Your task to perform on an android device: open a bookmark in the chrome app Image 0: 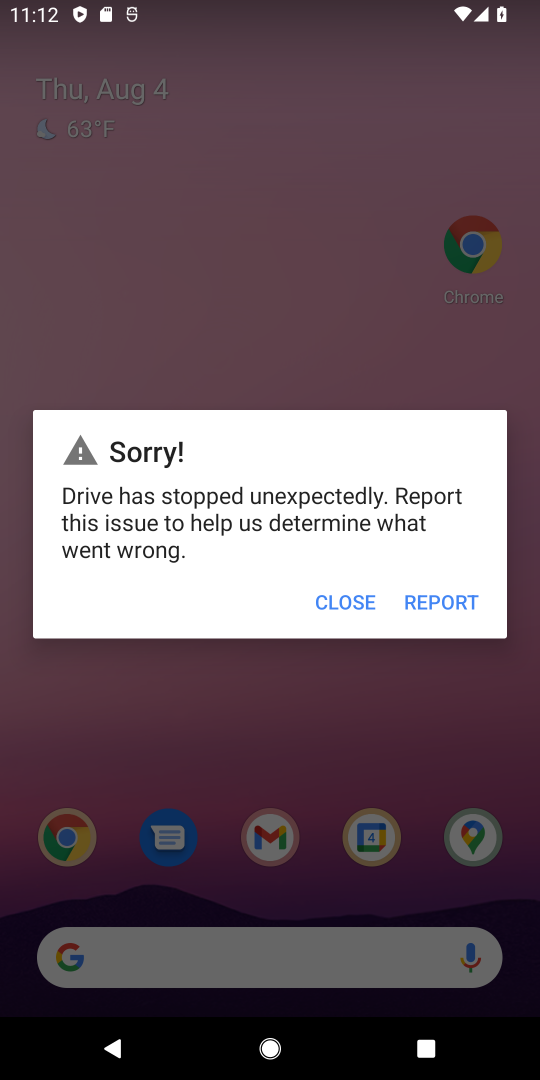
Step 0: press home button
Your task to perform on an android device: open a bookmark in the chrome app Image 1: 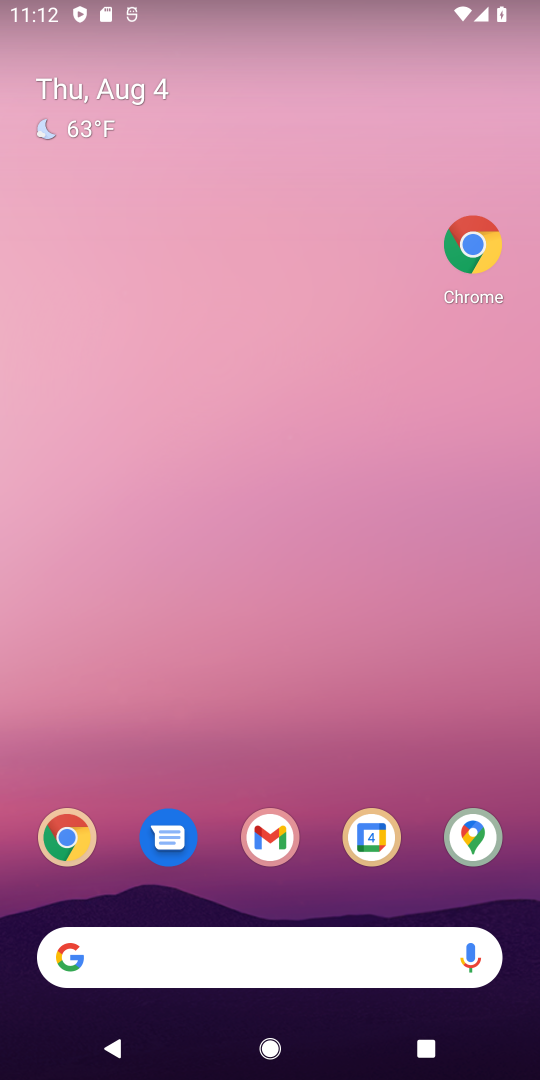
Step 1: click (470, 469)
Your task to perform on an android device: open a bookmark in the chrome app Image 2: 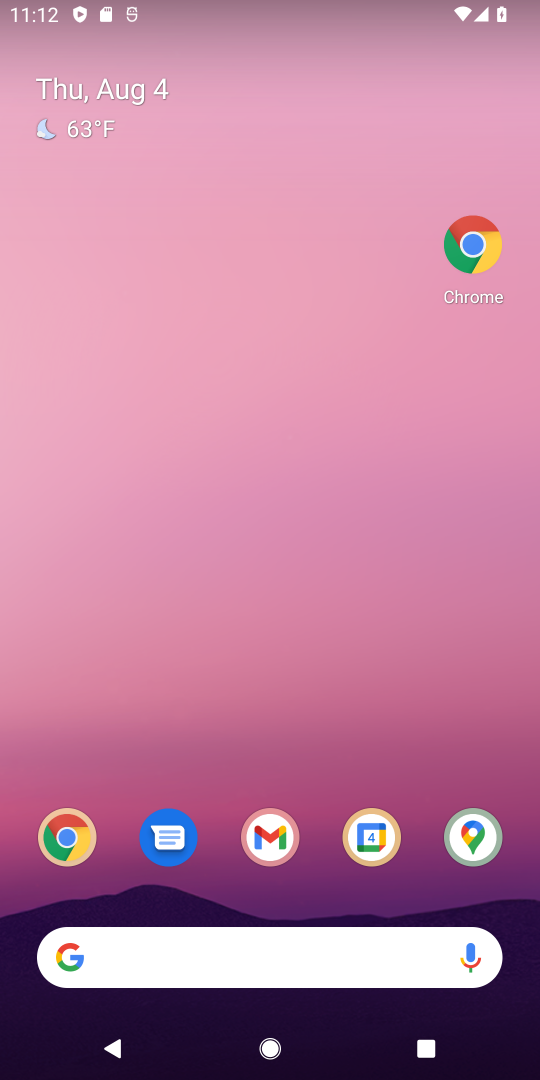
Step 2: drag from (324, 905) to (379, 66)
Your task to perform on an android device: open a bookmark in the chrome app Image 3: 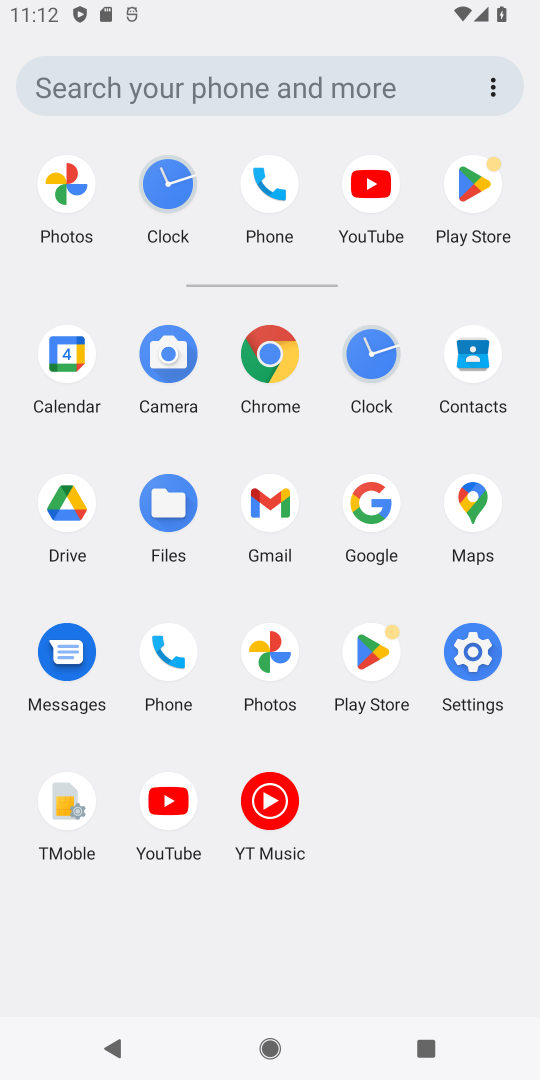
Step 3: click (271, 353)
Your task to perform on an android device: open a bookmark in the chrome app Image 4: 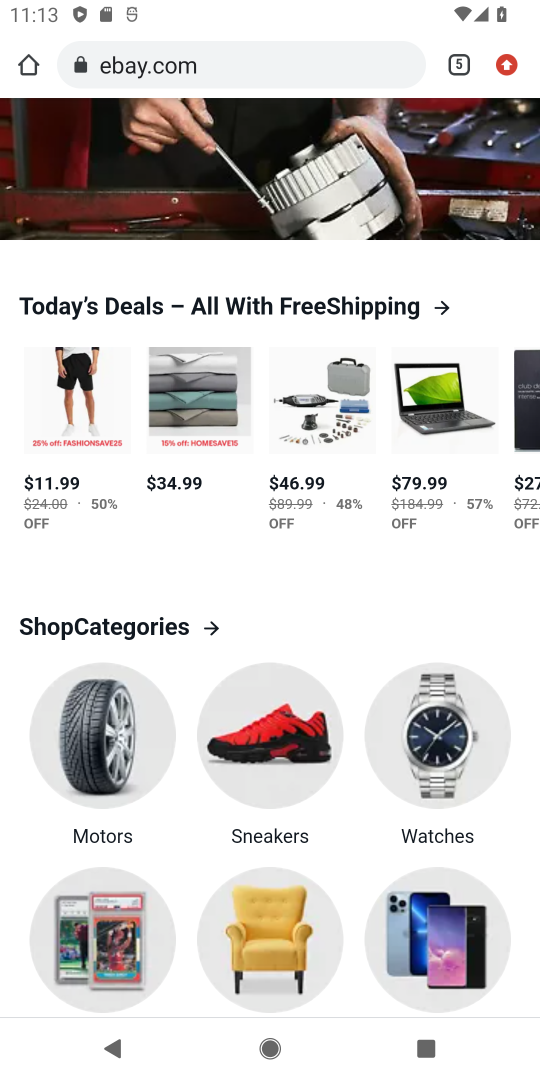
Step 4: click (507, 64)
Your task to perform on an android device: open a bookmark in the chrome app Image 5: 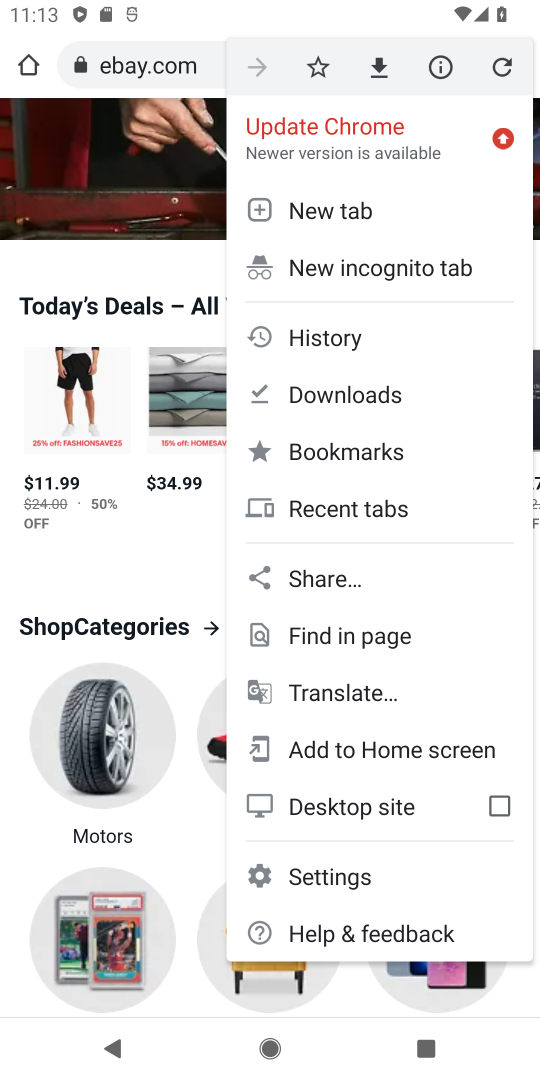
Step 5: click (334, 444)
Your task to perform on an android device: open a bookmark in the chrome app Image 6: 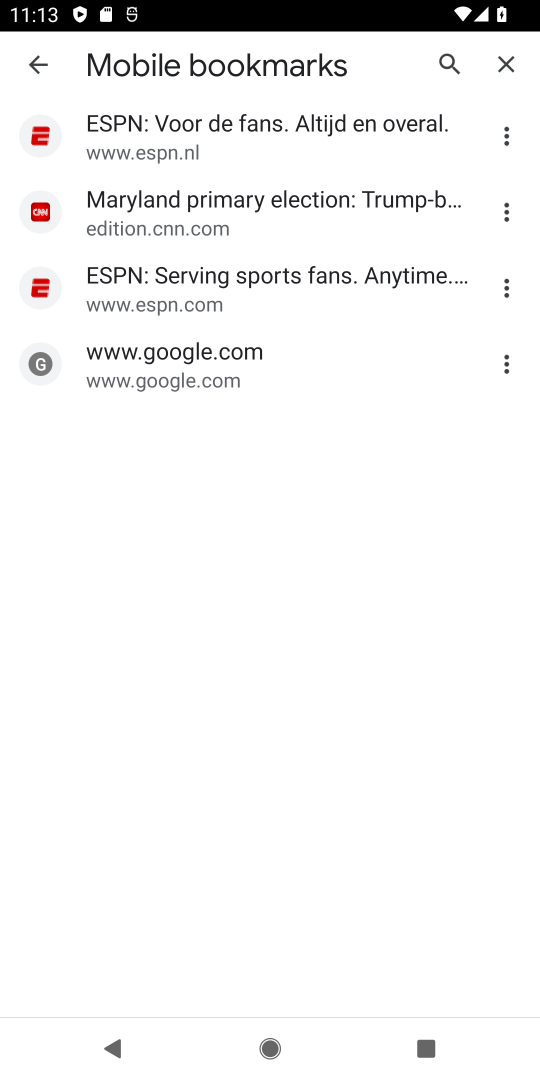
Step 6: click (261, 210)
Your task to perform on an android device: open a bookmark in the chrome app Image 7: 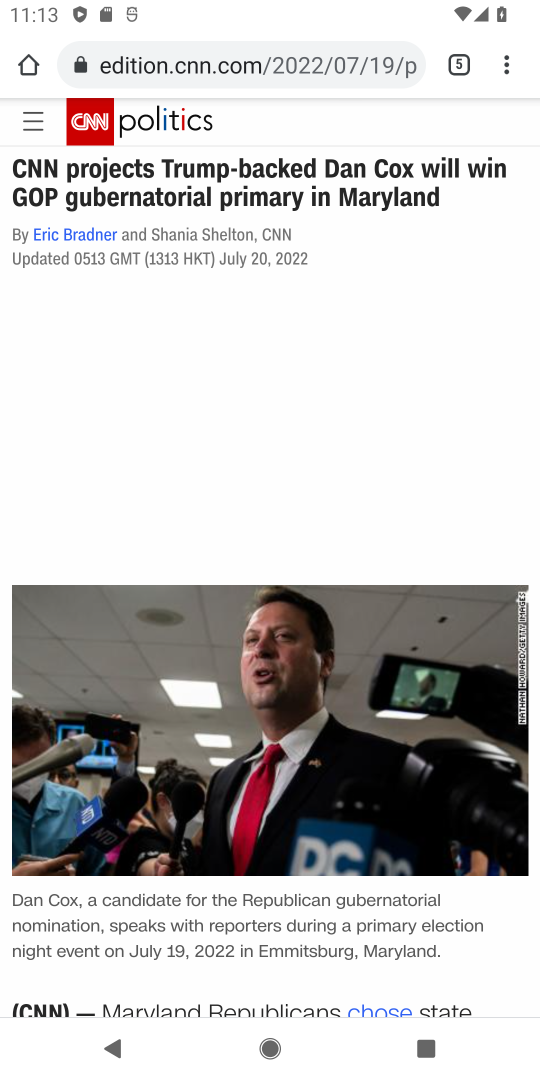
Step 7: click (511, 65)
Your task to perform on an android device: open a bookmark in the chrome app Image 8: 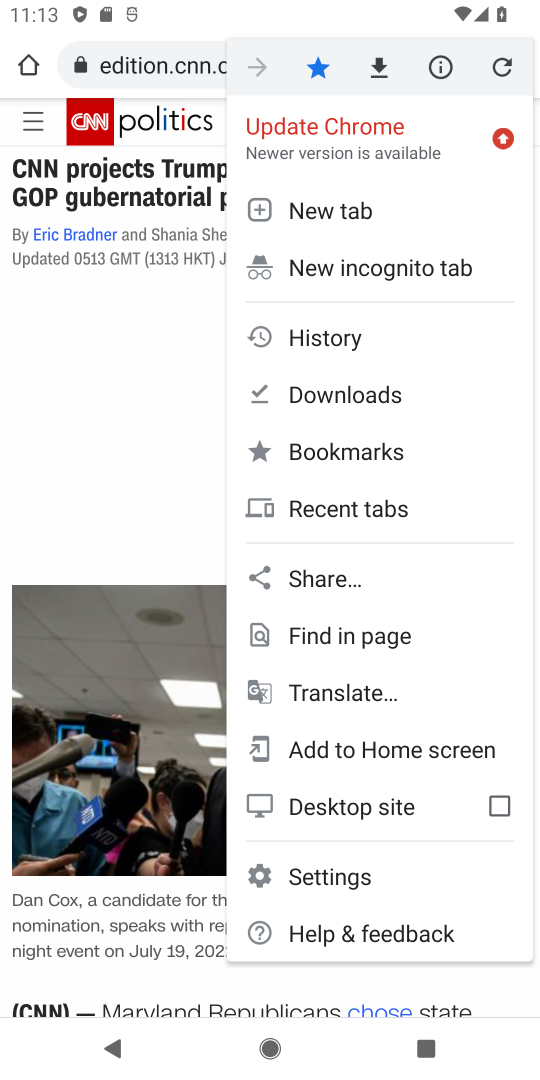
Step 8: click (404, 441)
Your task to perform on an android device: open a bookmark in the chrome app Image 9: 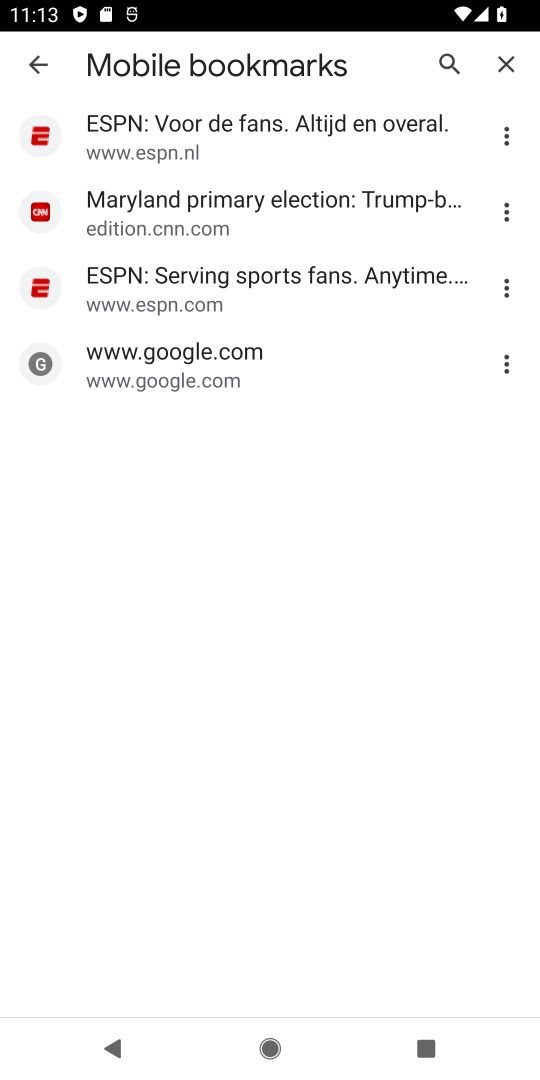
Step 9: click (210, 284)
Your task to perform on an android device: open a bookmark in the chrome app Image 10: 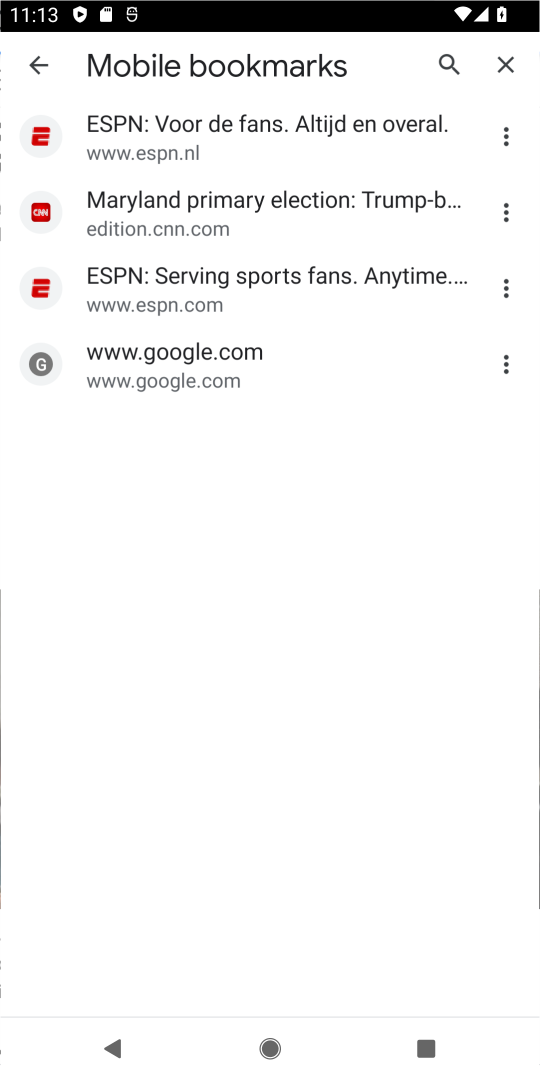
Step 10: task complete